Your task to perform on an android device: turn off translation in the chrome app Image 0: 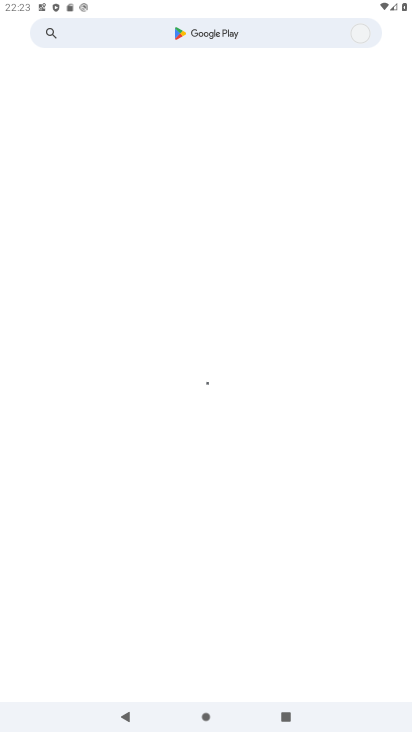
Step 0: press home button
Your task to perform on an android device: turn off translation in the chrome app Image 1: 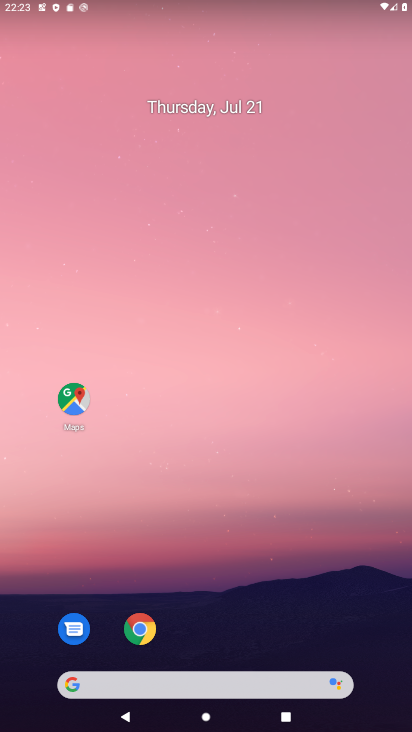
Step 1: click (124, 620)
Your task to perform on an android device: turn off translation in the chrome app Image 2: 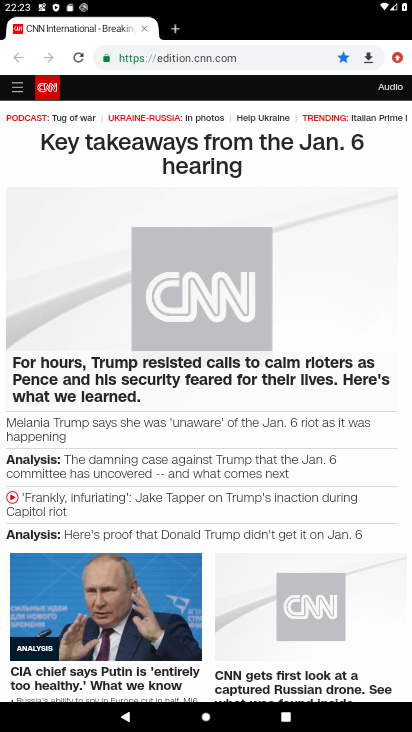
Step 2: click (395, 57)
Your task to perform on an android device: turn off translation in the chrome app Image 3: 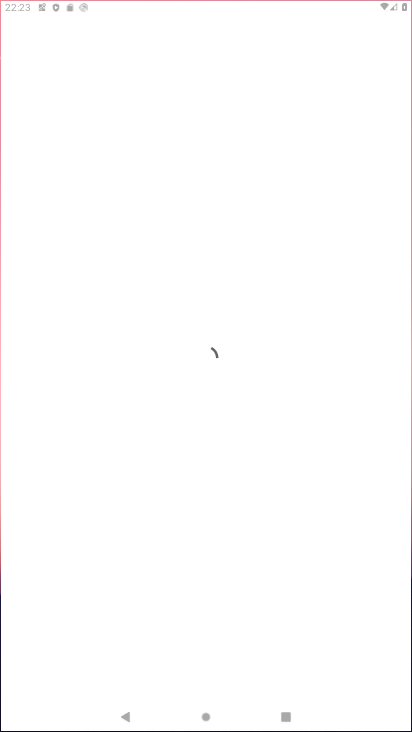
Step 3: click (398, 51)
Your task to perform on an android device: turn off translation in the chrome app Image 4: 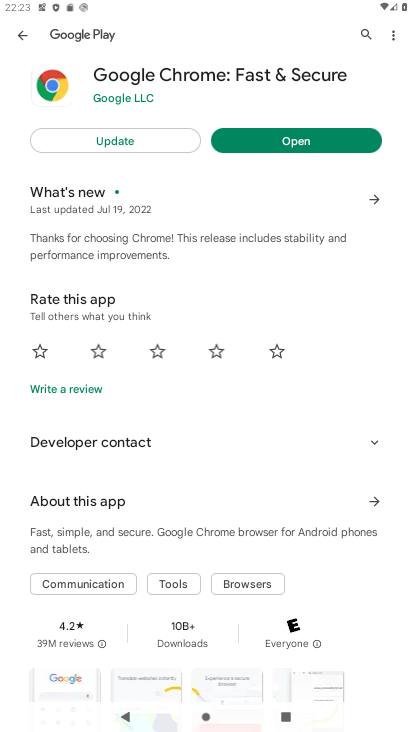
Step 4: press back button
Your task to perform on an android device: turn off translation in the chrome app Image 5: 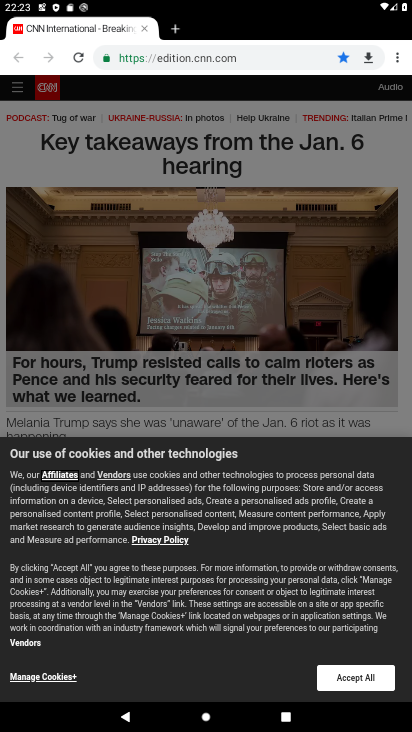
Step 5: click (394, 61)
Your task to perform on an android device: turn off translation in the chrome app Image 6: 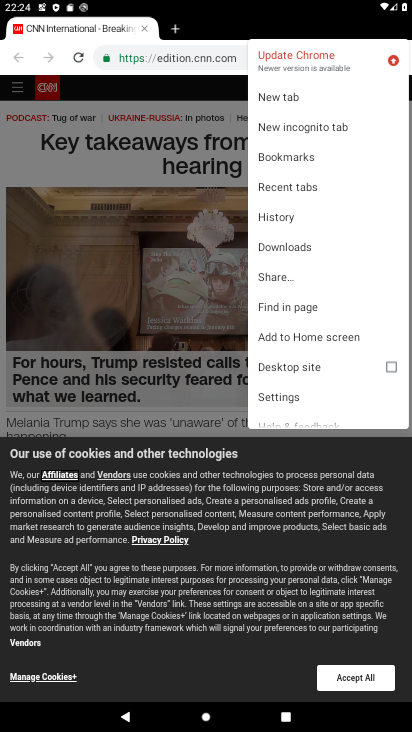
Step 6: click (281, 399)
Your task to perform on an android device: turn off translation in the chrome app Image 7: 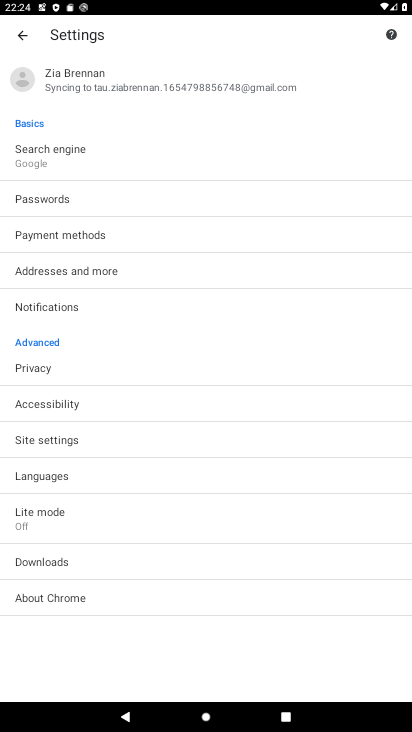
Step 7: click (44, 466)
Your task to perform on an android device: turn off translation in the chrome app Image 8: 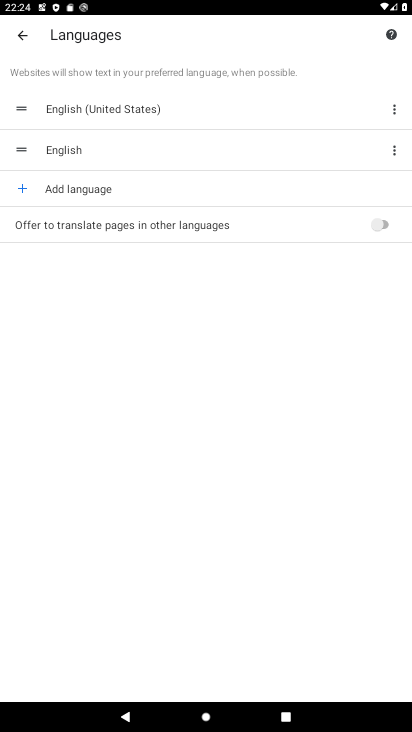
Step 8: task complete